Your task to perform on an android device: turn on sleep mode Image 0: 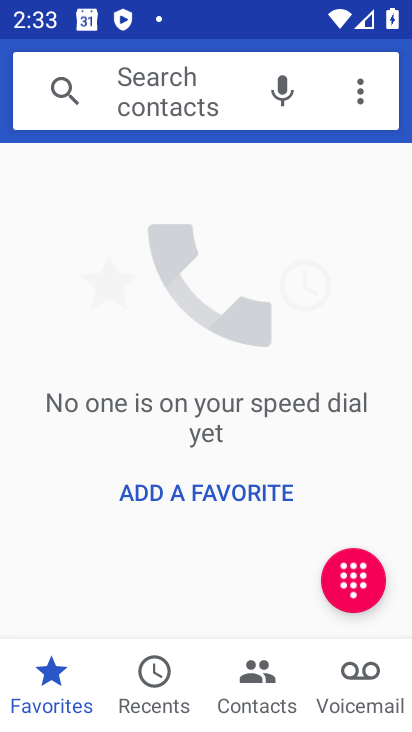
Step 0: press home button
Your task to perform on an android device: turn on sleep mode Image 1: 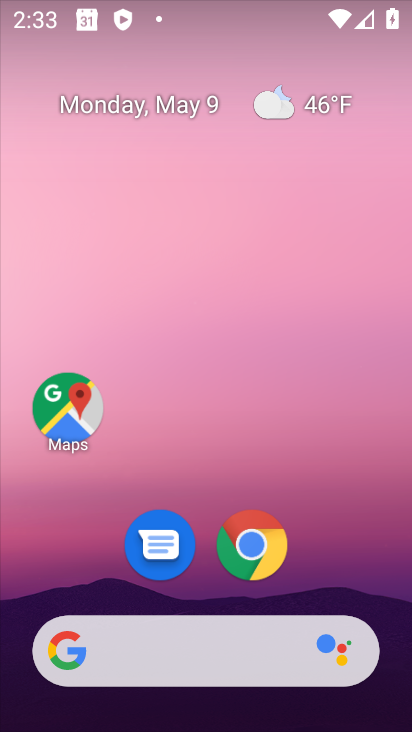
Step 1: drag from (217, 602) to (249, 207)
Your task to perform on an android device: turn on sleep mode Image 2: 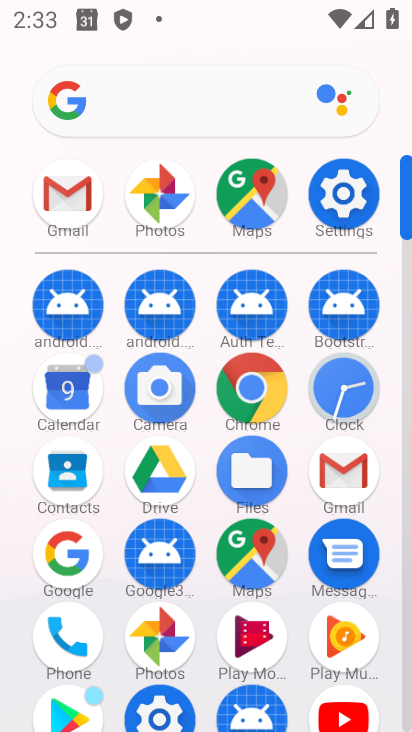
Step 2: click (318, 187)
Your task to perform on an android device: turn on sleep mode Image 3: 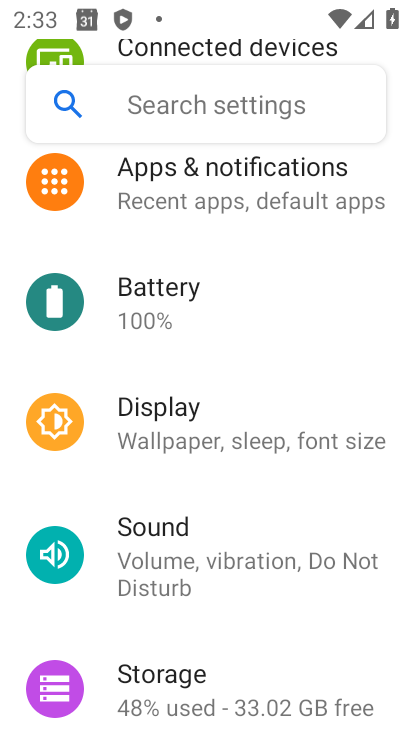
Step 3: click (226, 414)
Your task to perform on an android device: turn on sleep mode Image 4: 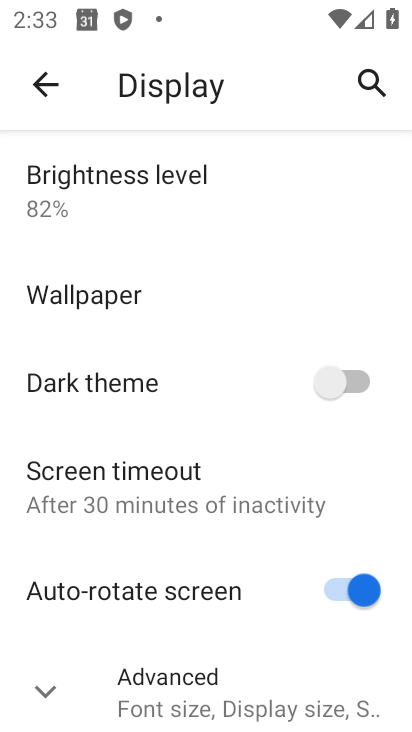
Step 4: click (174, 486)
Your task to perform on an android device: turn on sleep mode Image 5: 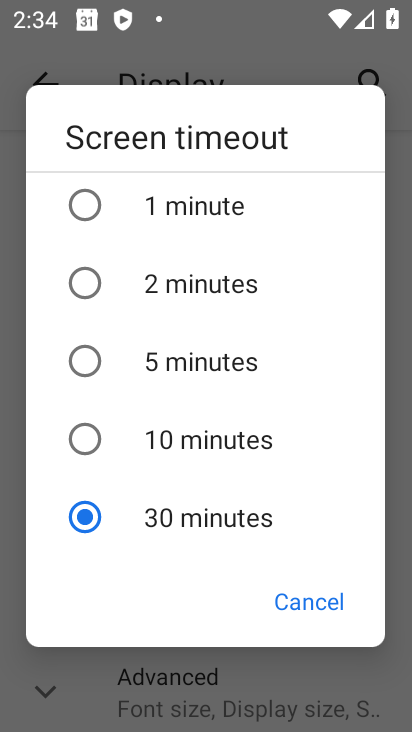
Step 5: click (173, 439)
Your task to perform on an android device: turn on sleep mode Image 6: 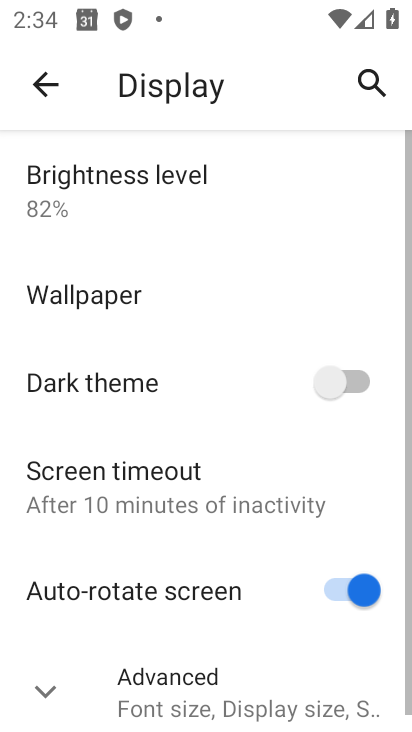
Step 6: task complete